Your task to perform on an android device: Clear all items from cart on costco.com. Add "razer naga" to the cart on costco.com Image 0: 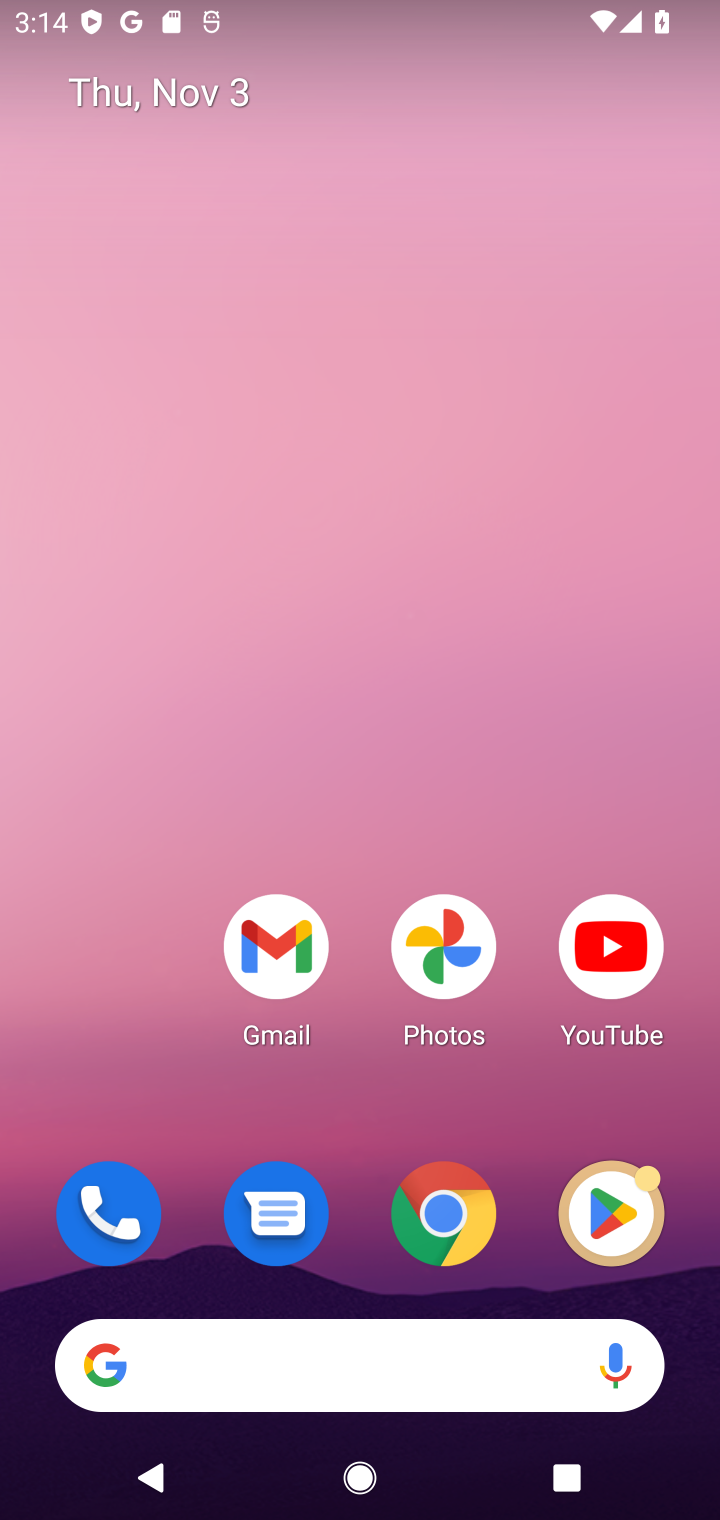
Step 0: click (438, 1222)
Your task to perform on an android device: Clear all items from cart on costco.com. Add "razer naga" to the cart on costco.com Image 1: 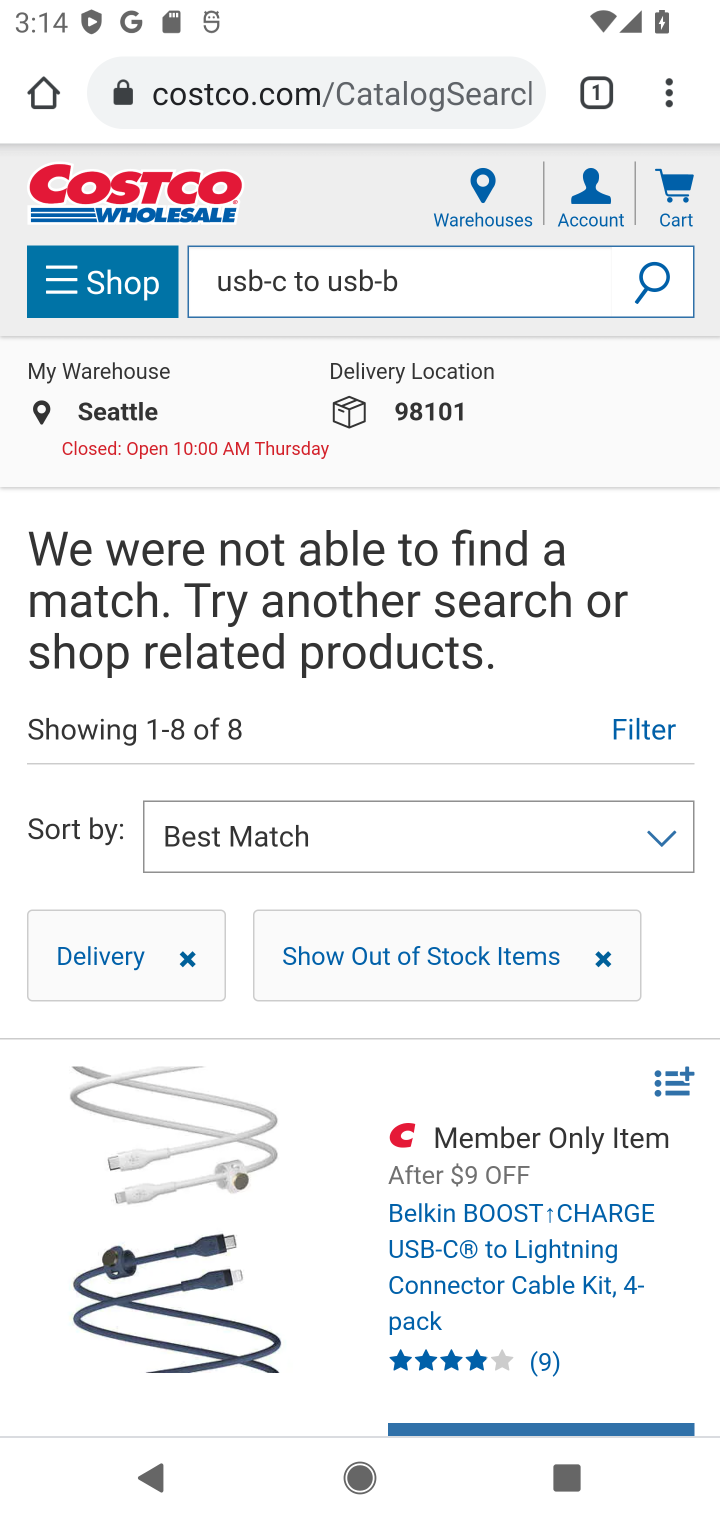
Step 1: click (276, 100)
Your task to perform on an android device: Clear all items from cart on costco.com. Add "razer naga" to the cart on costco.com Image 2: 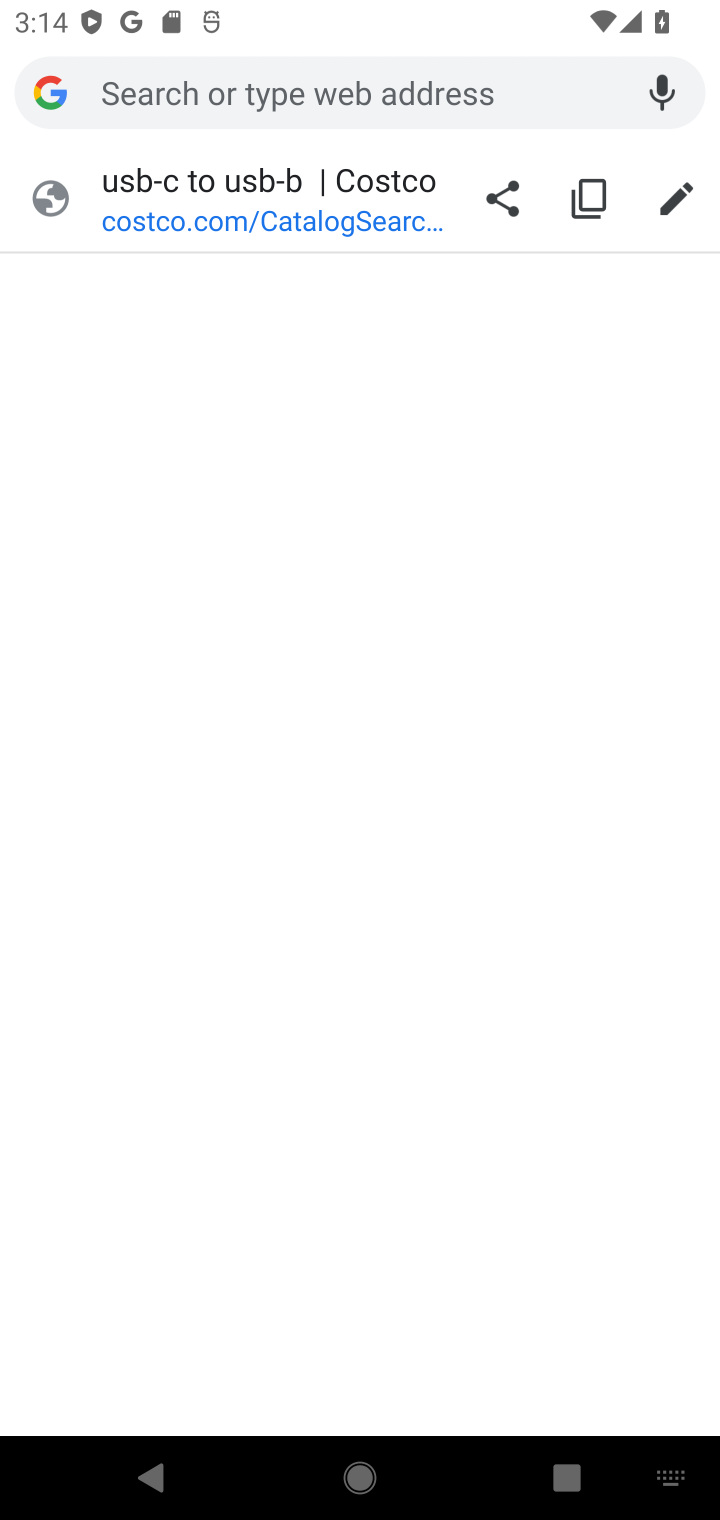
Step 2: type "costco.com"
Your task to perform on an android device: Clear all items from cart on costco.com. Add "razer naga" to the cart on costco.com Image 3: 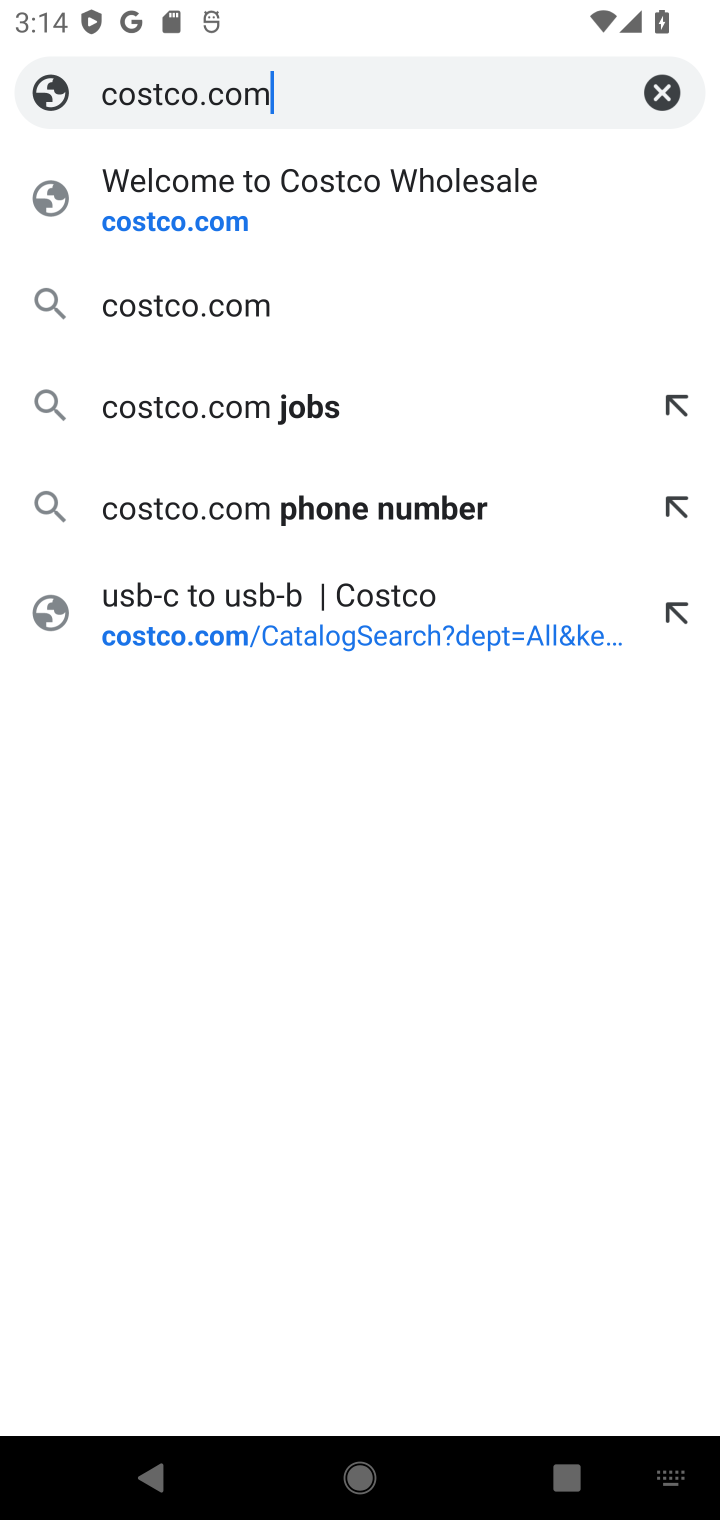
Step 3: click (238, 204)
Your task to perform on an android device: Clear all items from cart on costco.com. Add "razer naga" to the cart on costco.com Image 4: 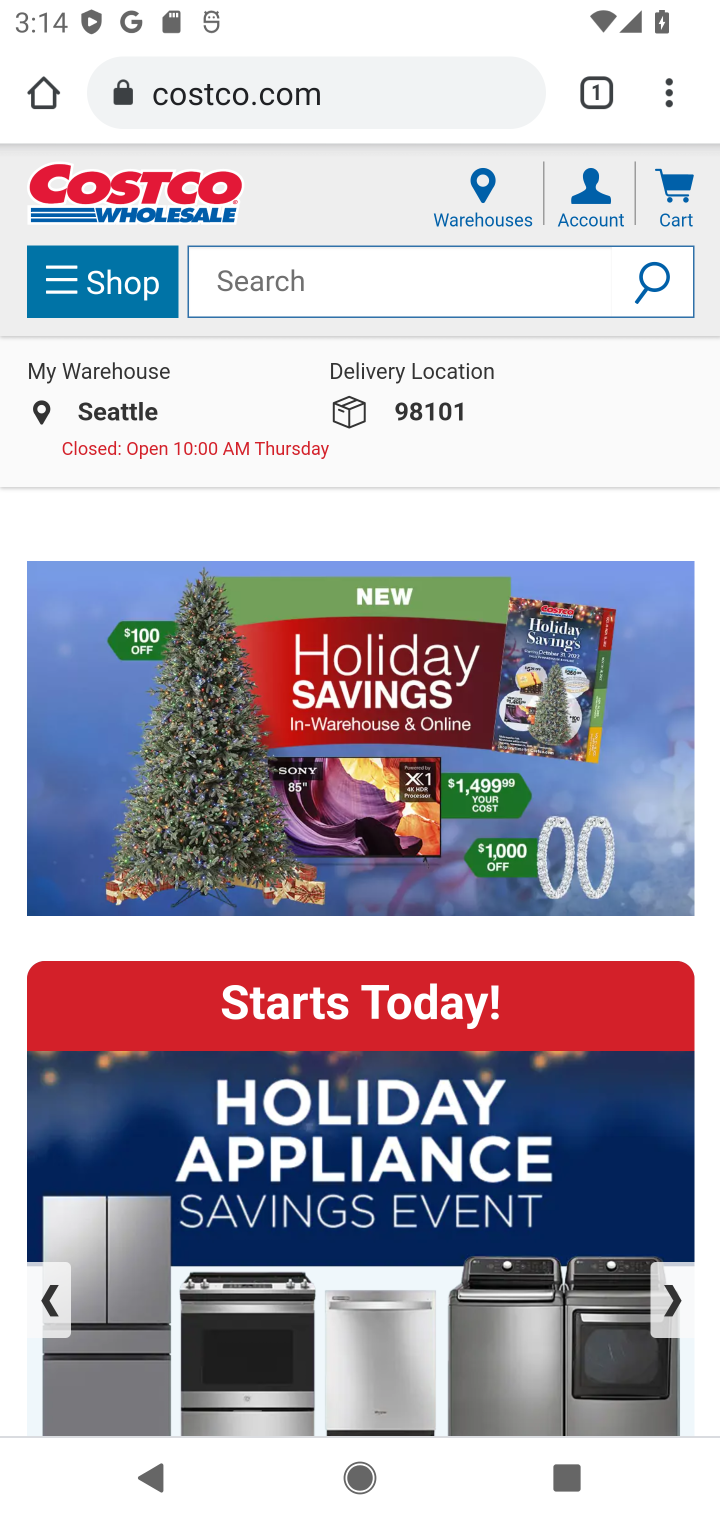
Step 4: click (673, 186)
Your task to perform on an android device: Clear all items from cart on costco.com. Add "razer naga" to the cart on costco.com Image 5: 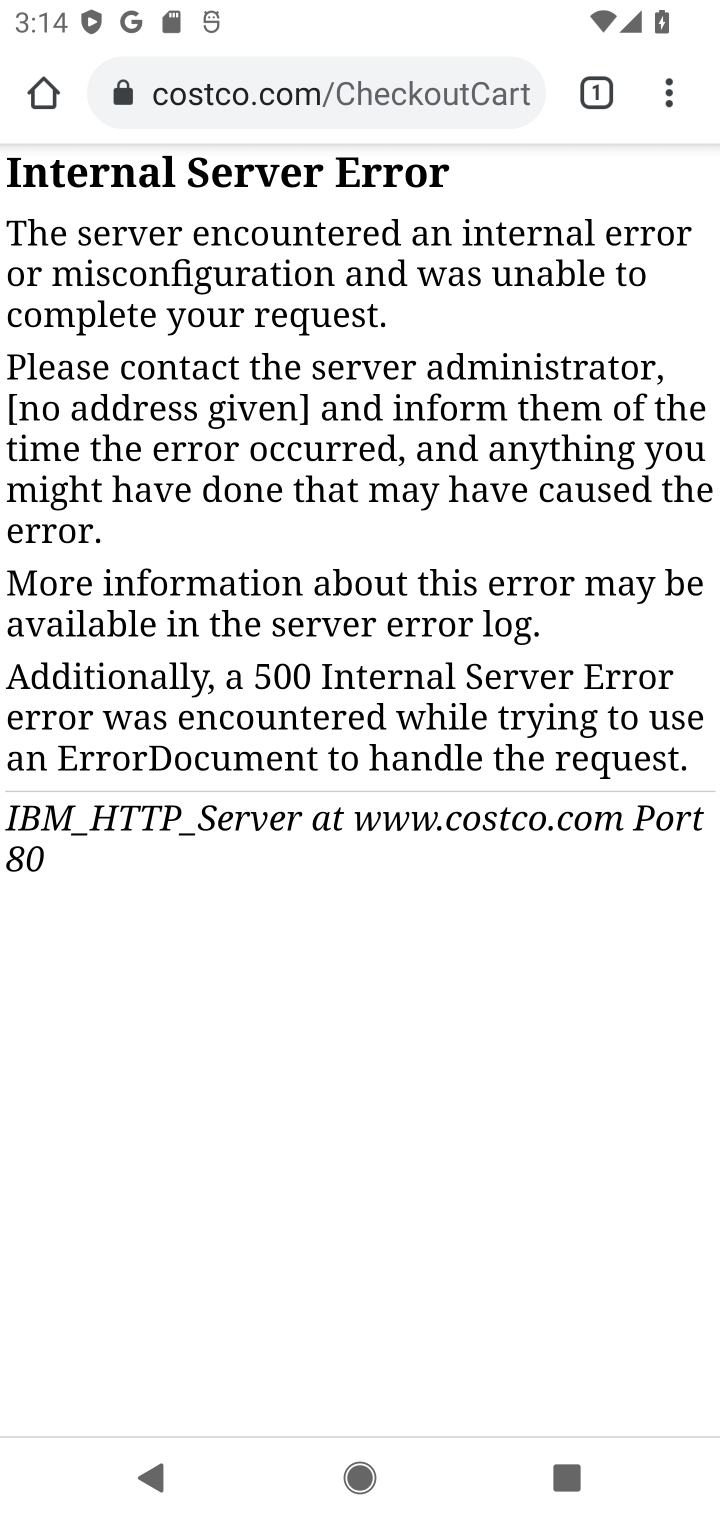
Step 5: press back button
Your task to perform on an android device: Clear all items from cart on costco.com. Add "razer naga" to the cart on costco.com Image 6: 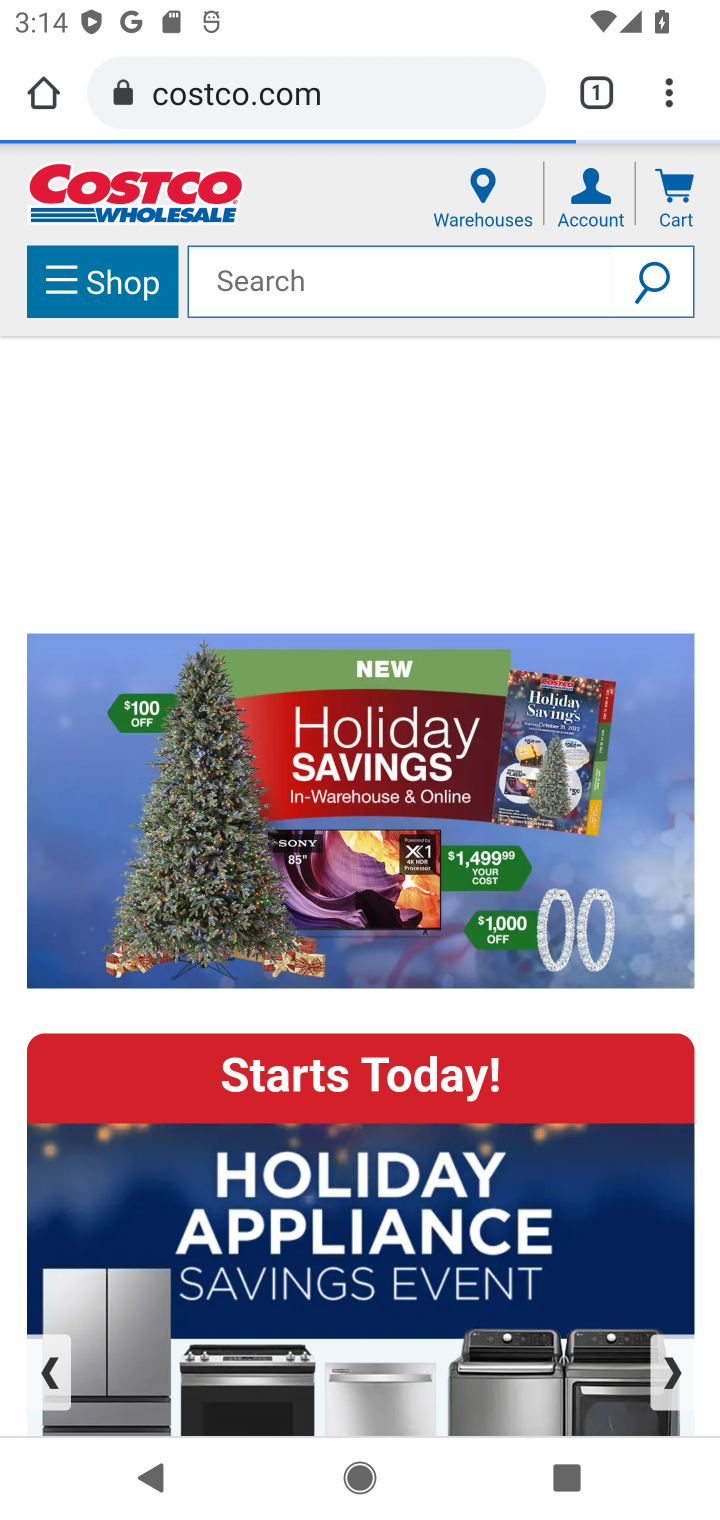
Step 6: click (686, 205)
Your task to perform on an android device: Clear all items from cart on costco.com. Add "razer naga" to the cart on costco.com Image 7: 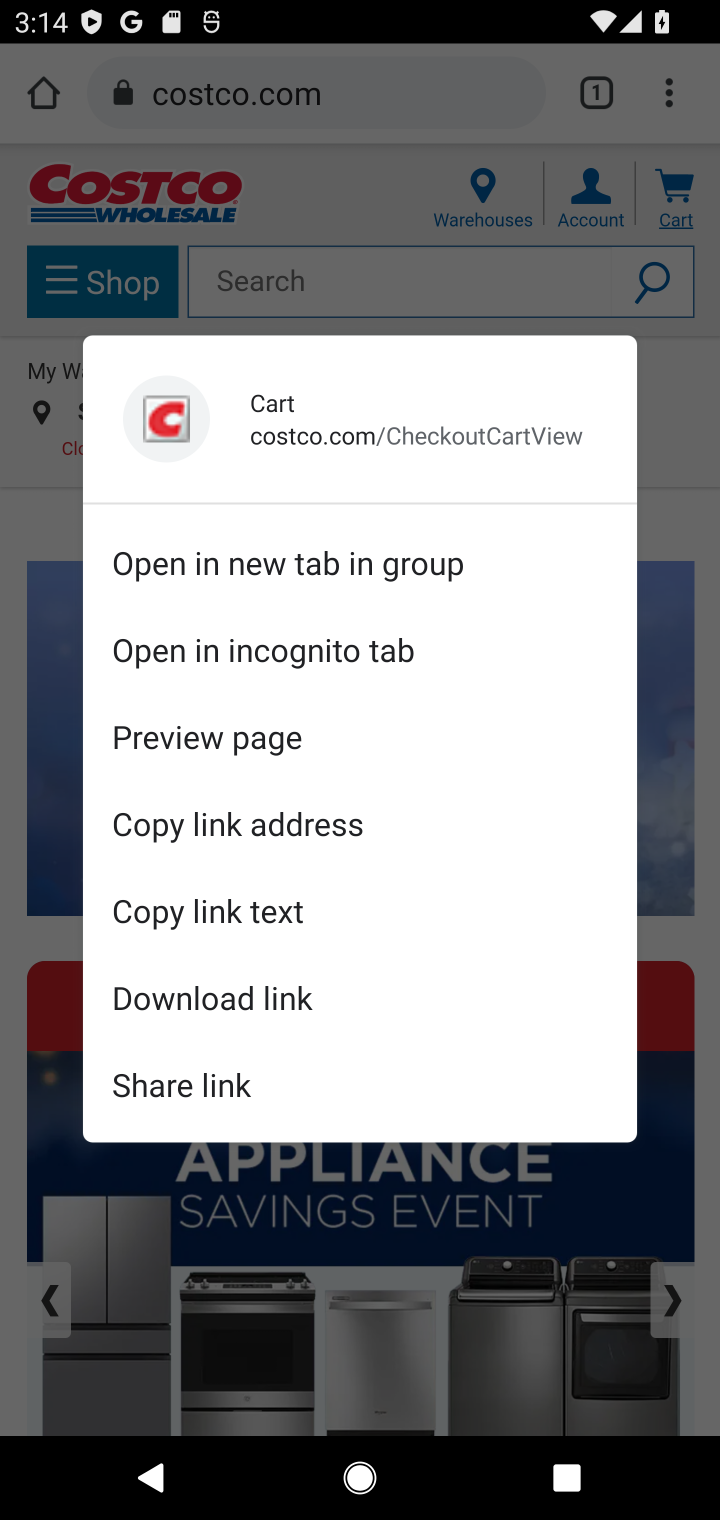
Step 7: click (686, 205)
Your task to perform on an android device: Clear all items from cart on costco.com. Add "razer naga" to the cart on costco.com Image 8: 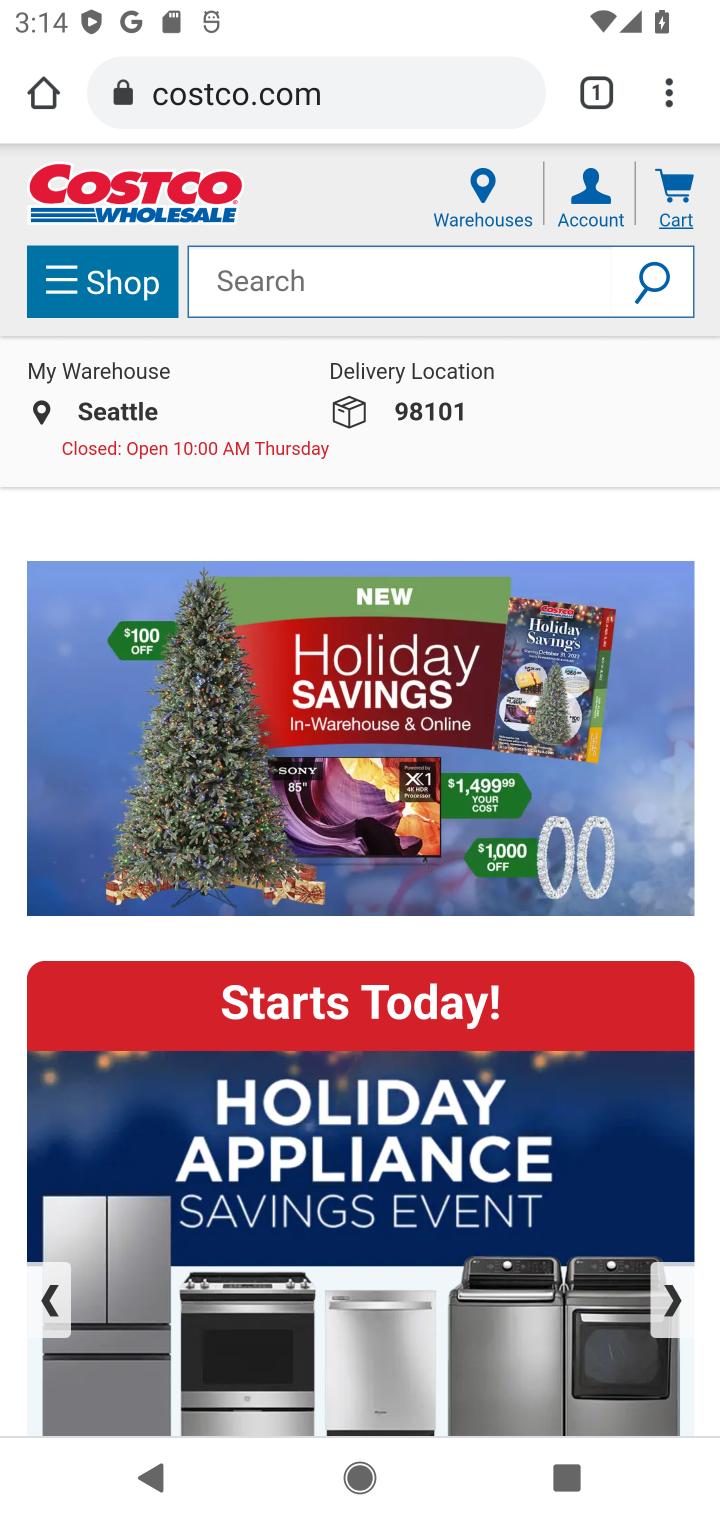
Step 8: click (679, 193)
Your task to perform on an android device: Clear all items from cart on costco.com. Add "razer naga" to the cart on costco.com Image 9: 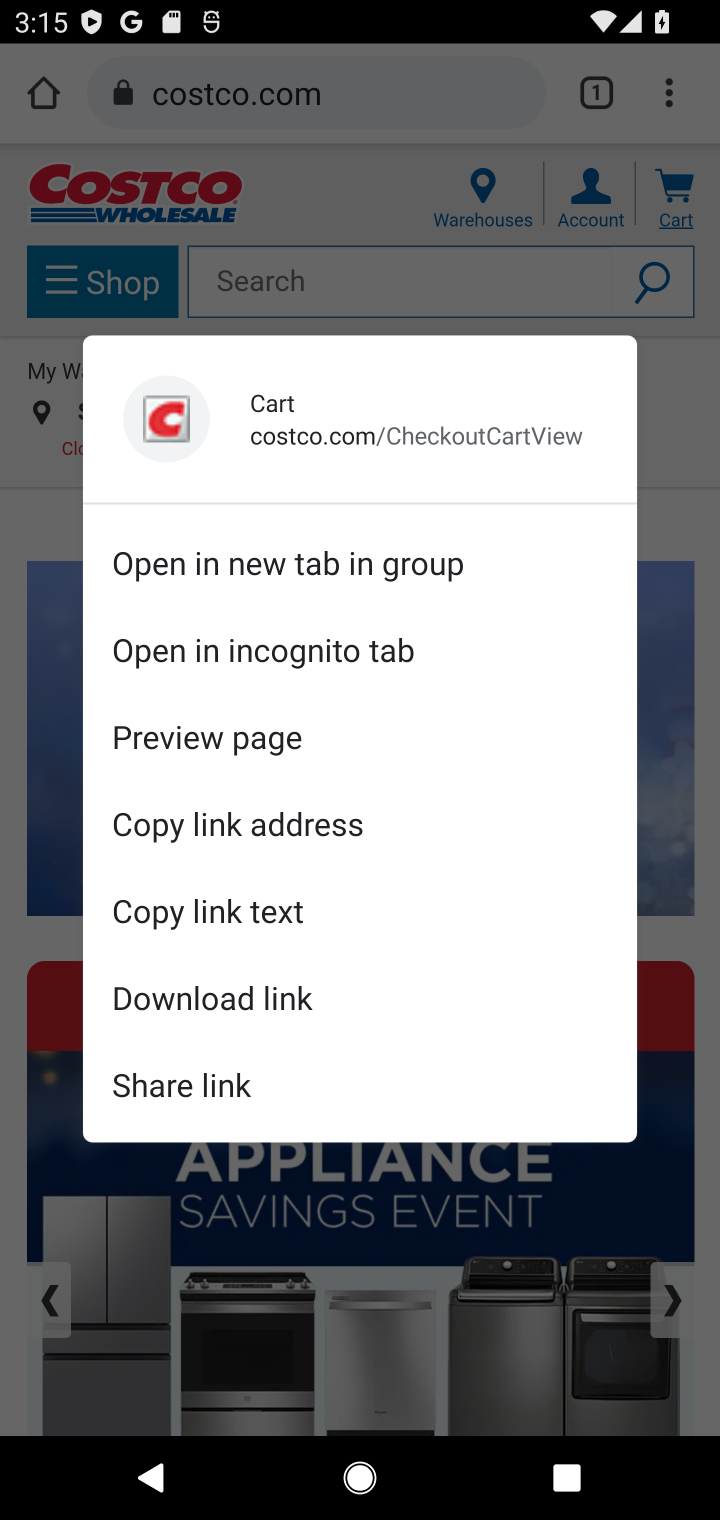
Step 9: click (695, 220)
Your task to perform on an android device: Clear all items from cart on costco.com. Add "razer naga" to the cart on costco.com Image 10: 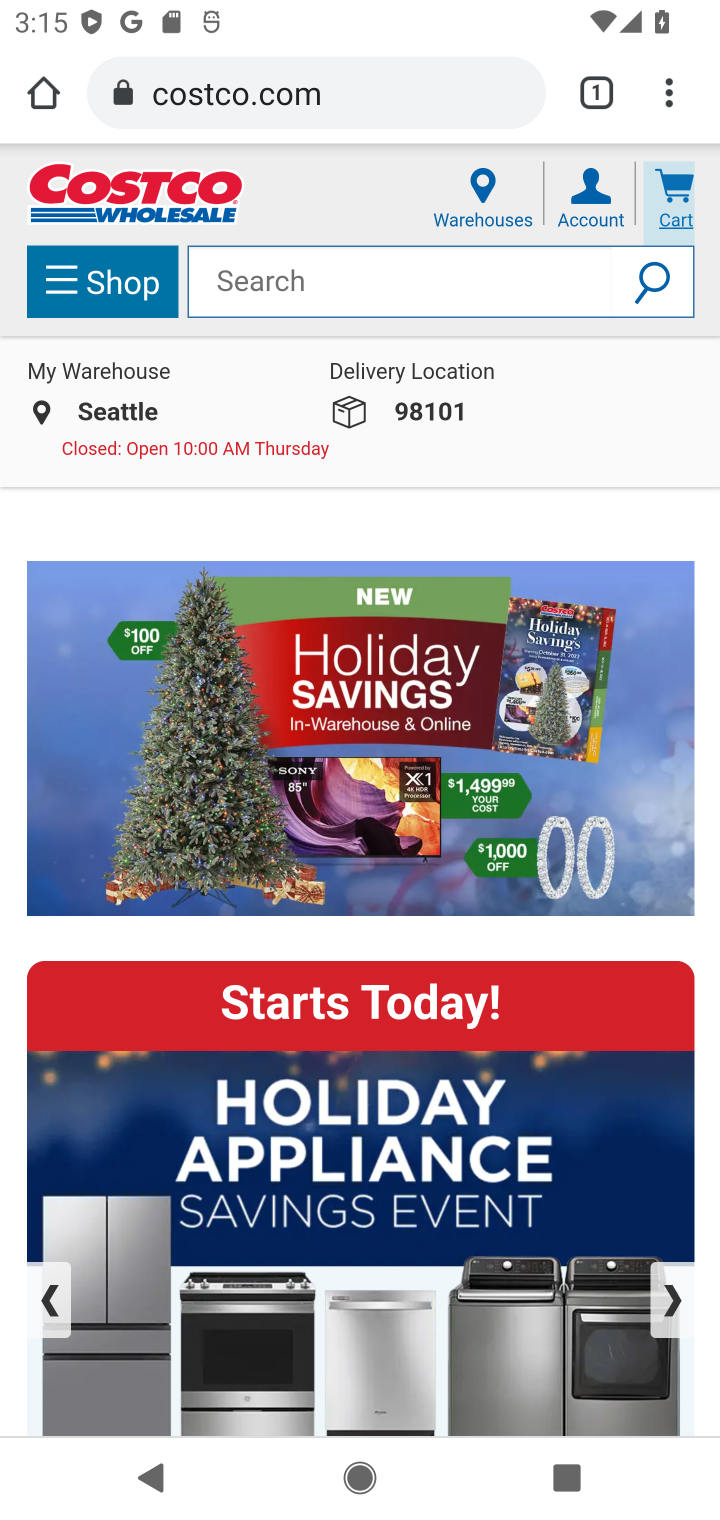
Step 10: click (677, 212)
Your task to perform on an android device: Clear all items from cart on costco.com. Add "razer naga" to the cart on costco.com Image 11: 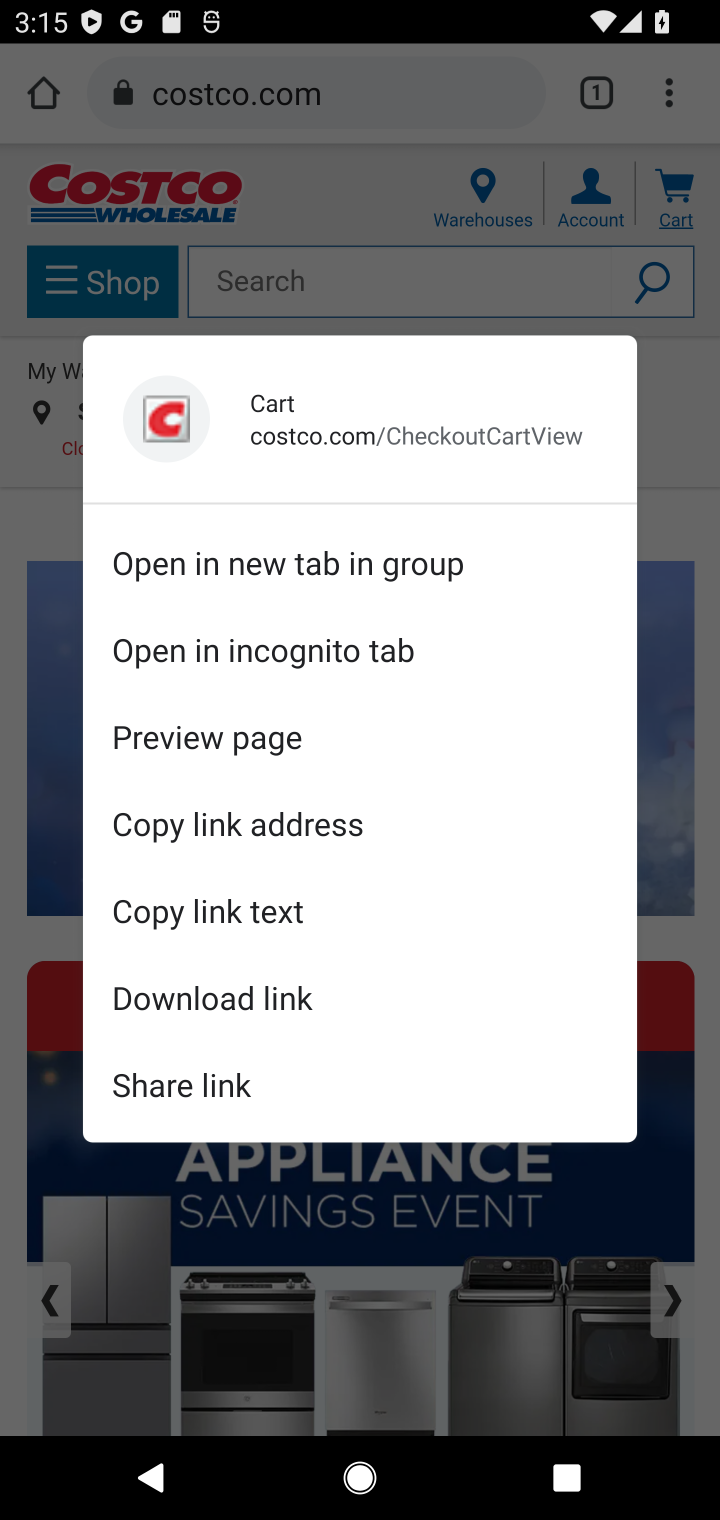
Step 11: click (677, 212)
Your task to perform on an android device: Clear all items from cart on costco.com. Add "razer naga" to the cart on costco.com Image 12: 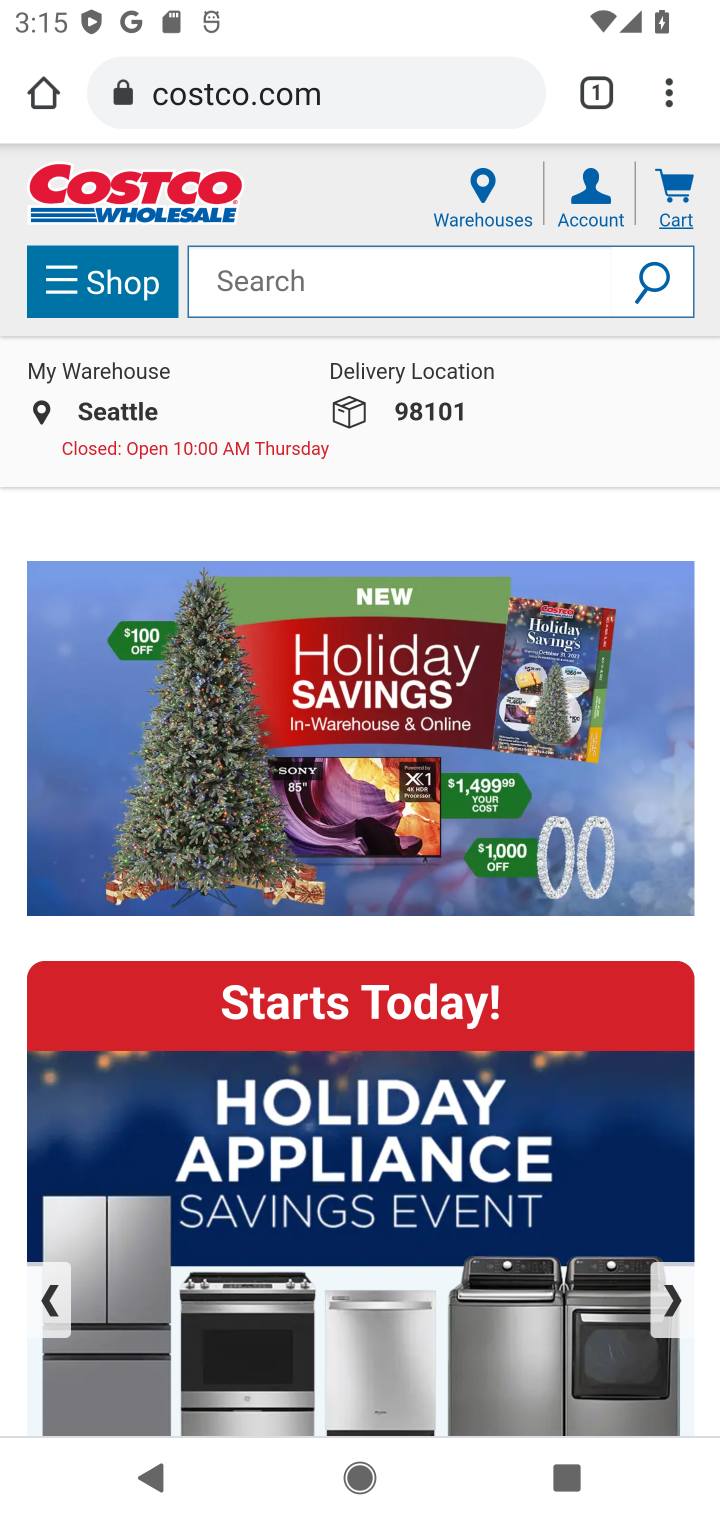
Step 12: click (673, 192)
Your task to perform on an android device: Clear all items from cart on costco.com. Add "razer naga" to the cart on costco.com Image 13: 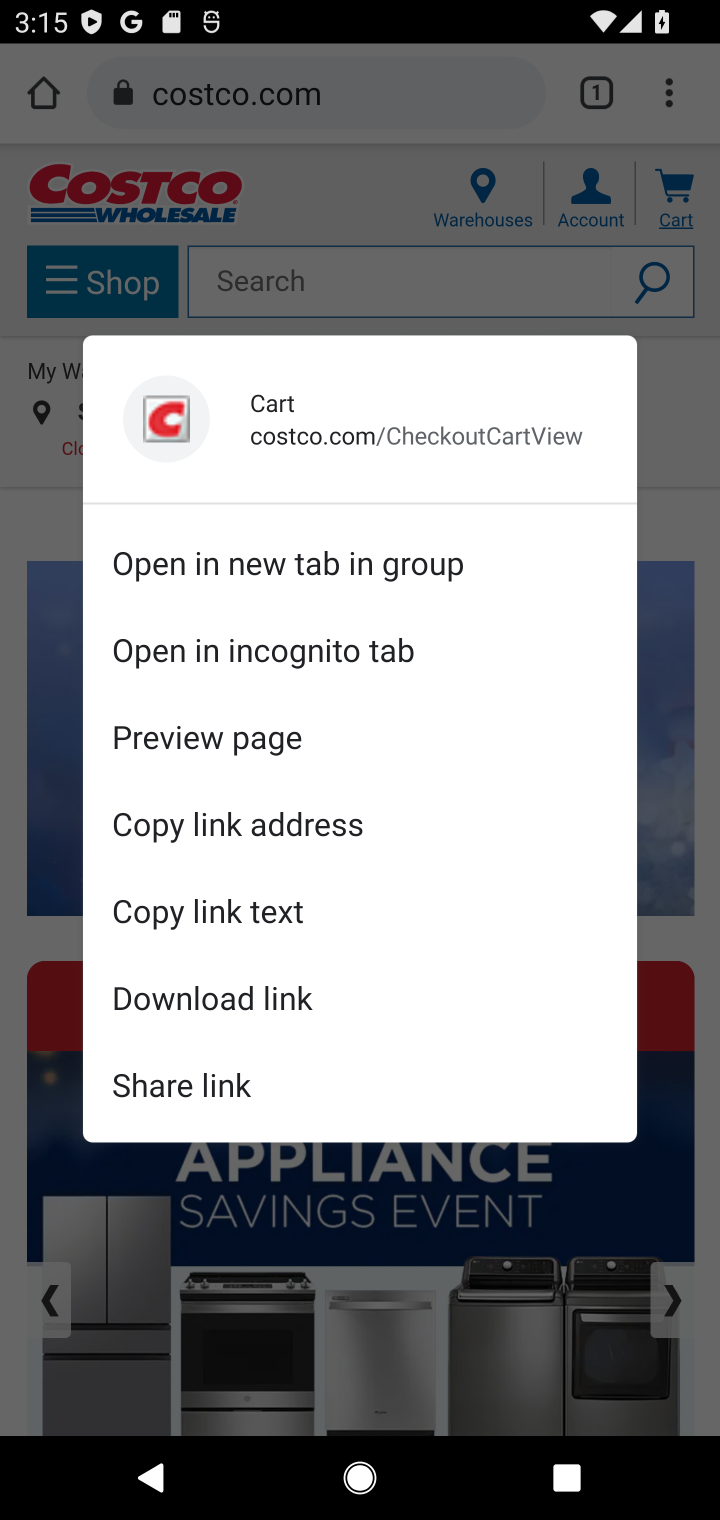
Step 13: click (673, 192)
Your task to perform on an android device: Clear all items from cart on costco.com. Add "razer naga" to the cart on costco.com Image 14: 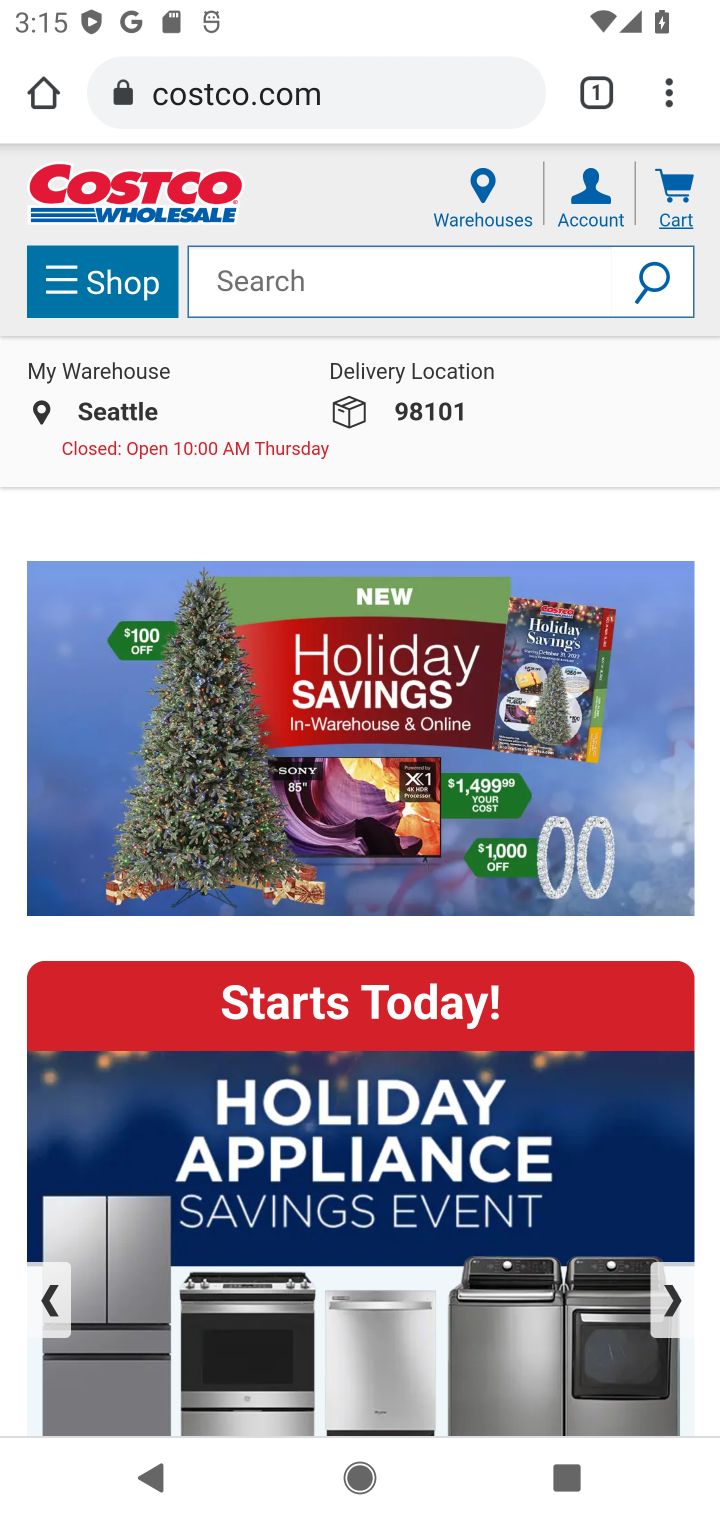
Step 14: click (681, 194)
Your task to perform on an android device: Clear all items from cart on costco.com. Add "razer naga" to the cart on costco.com Image 15: 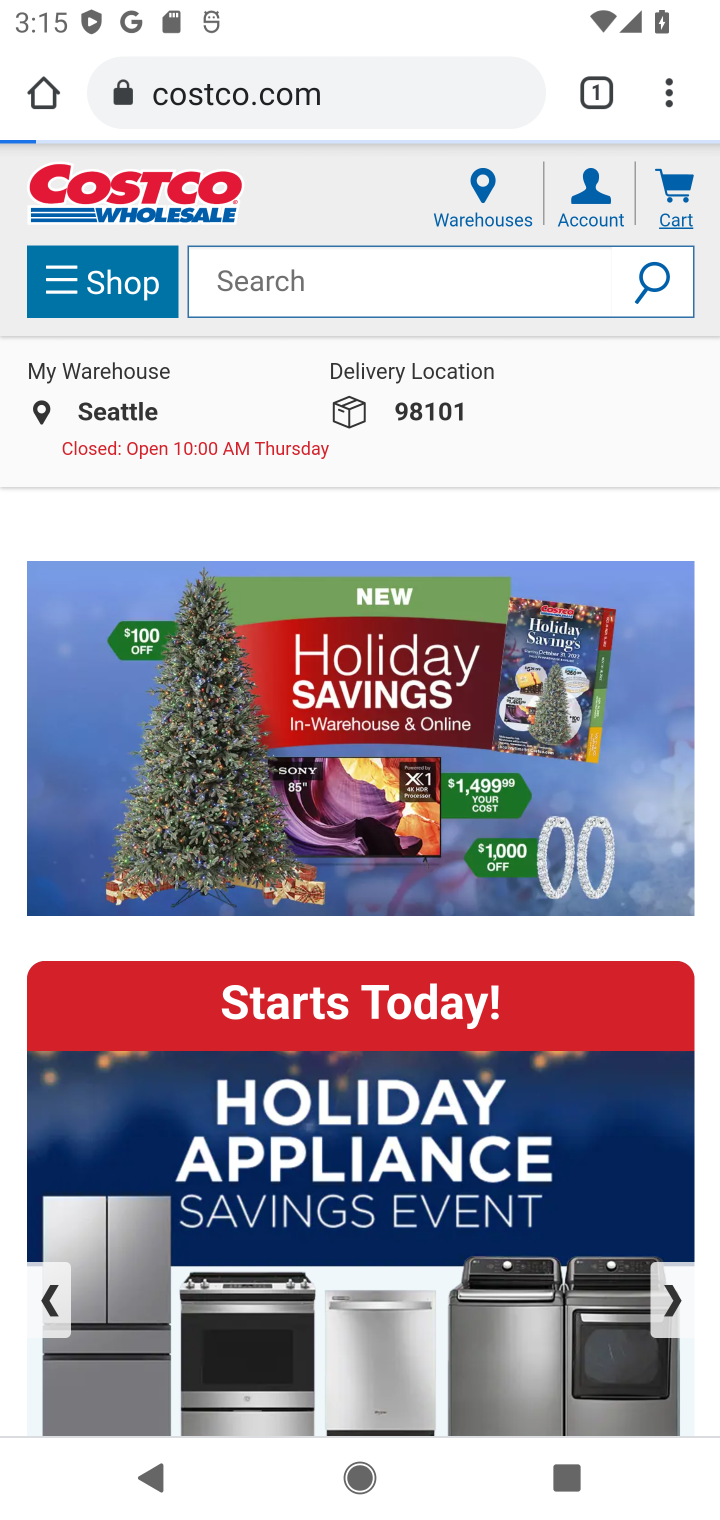
Step 15: click (673, 211)
Your task to perform on an android device: Clear all items from cart on costco.com. Add "razer naga" to the cart on costco.com Image 16: 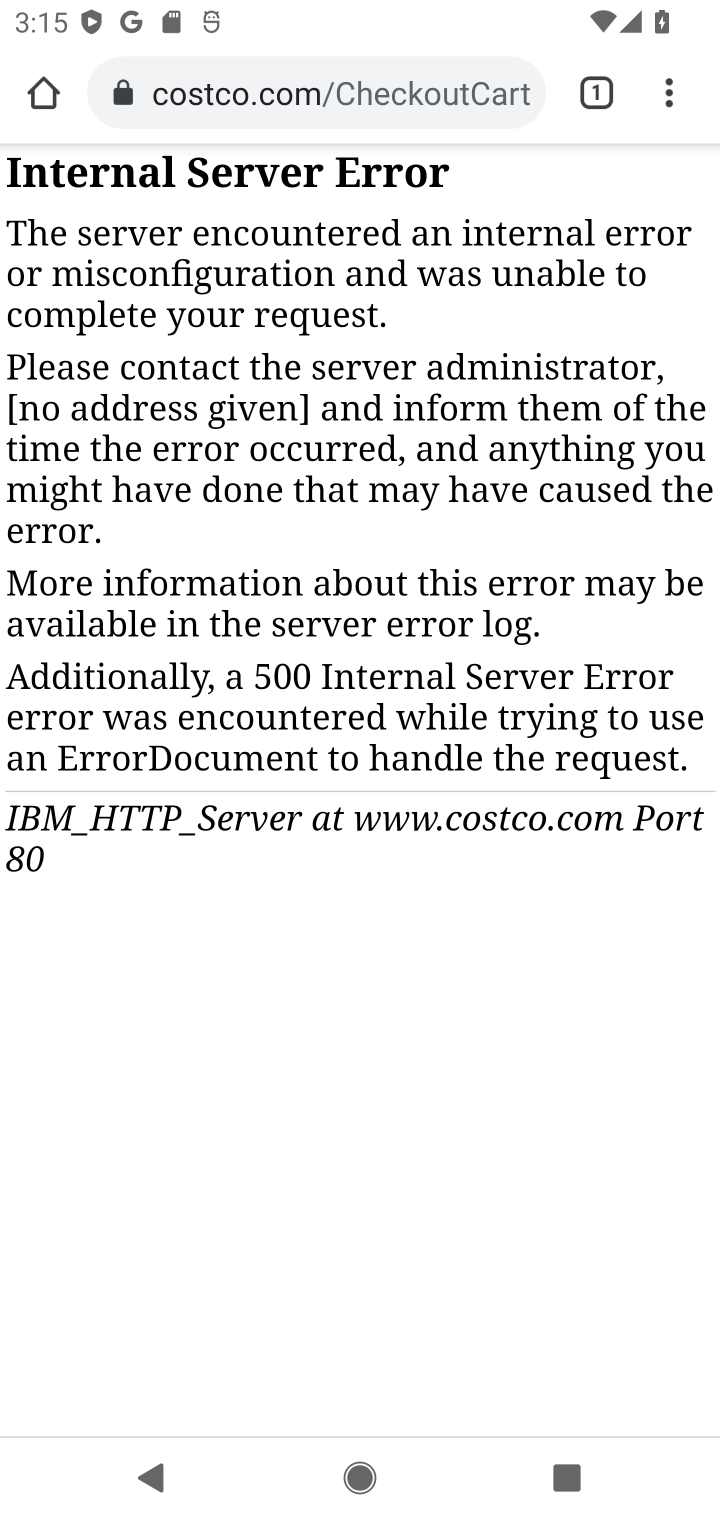
Step 16: task complete